Your task to perform on an android device: change the clock display to analog Image 0: 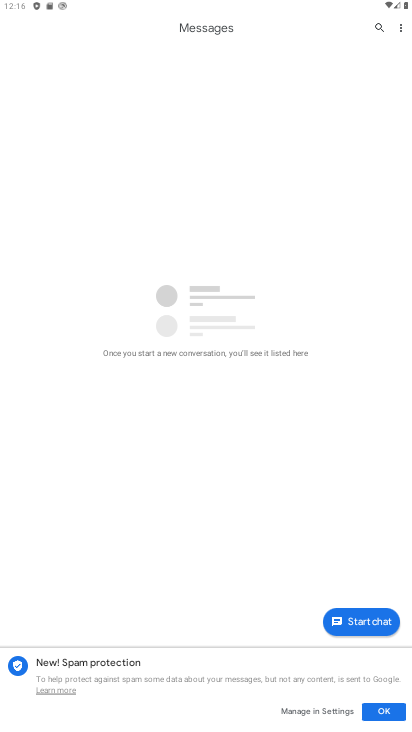
Step 0: press home button
Your task to perform on an android device: change the clock display to analog Image 1: 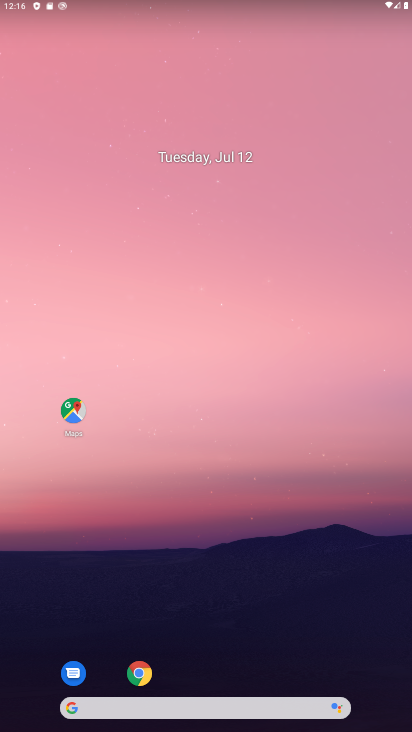
Step 1: drag from (256, 102) to (267, 6)
Your task to perform on an android device: change the clock display to analog Image 2: 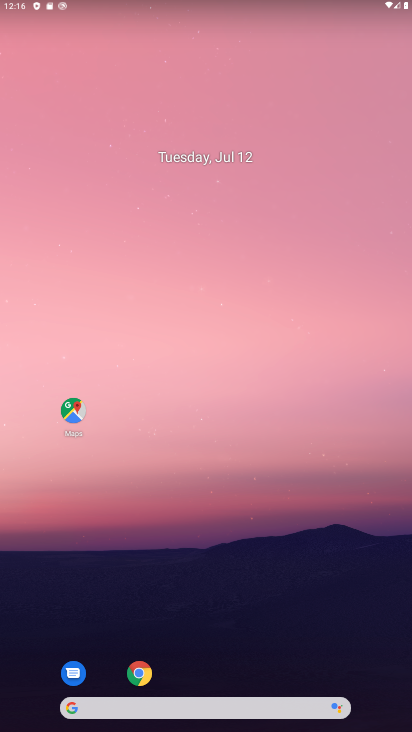
Step 2: drag from (321, 614) to (283, 283)
Your task to perform on an android device: change the clock display to analog Image 3: 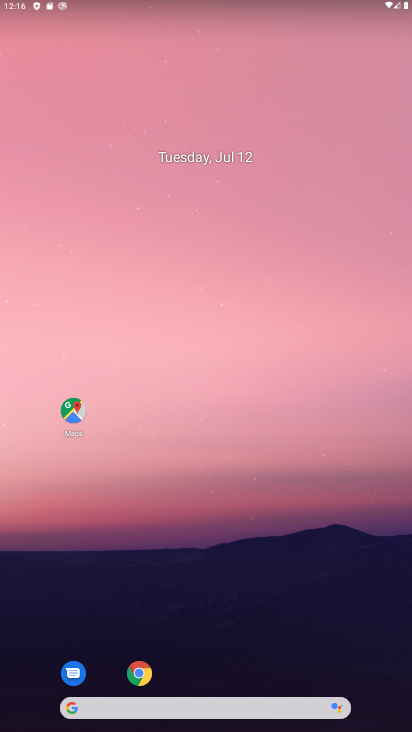
Step 3: drag from (390, 668) to (252, 77)
Your task to perform on an android device: change the clock display to analog Image 4: 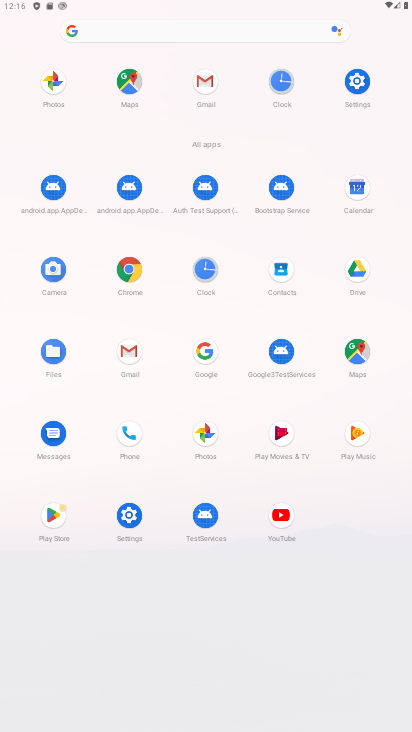
Step 4: click (280, 82)
Your task to perform on an android device: change the clock display to analog Image 5: 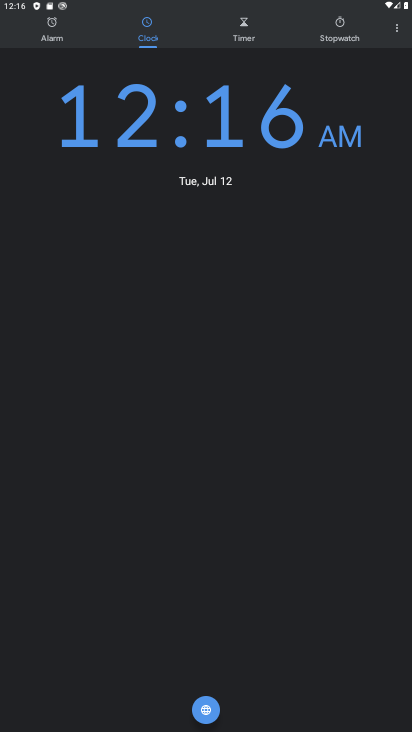
Step 5: click (392, 35)
Your task to perform on an android device: change the clock display to analog Image 6: 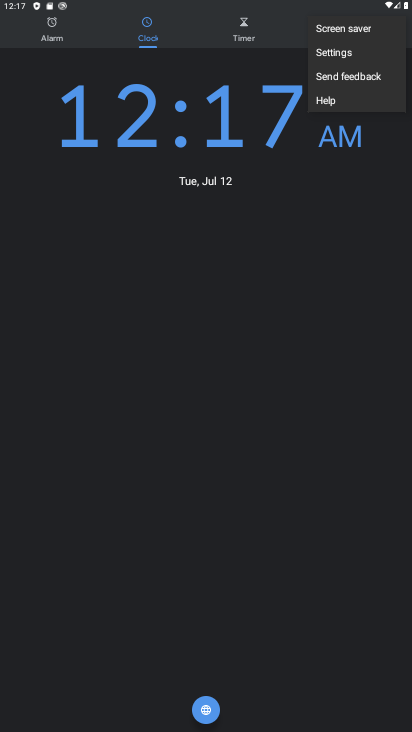
Step 6: click (352, 50)
Your task to perform on an android device: change the clock display to analog Image 7: 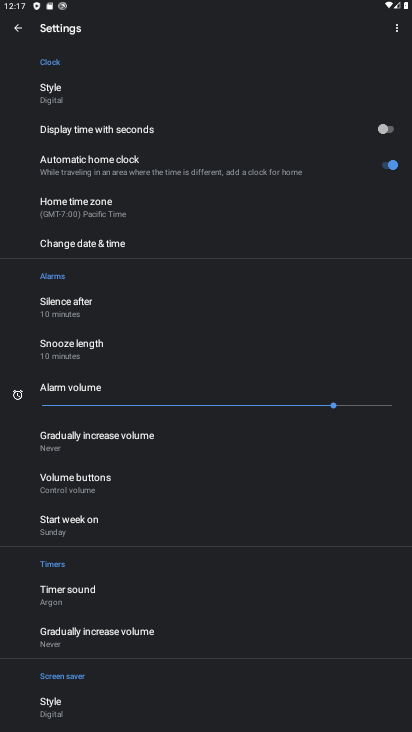
Step 7: click (156, 97)
Your task to perform on an android device: change the clock display to analog Image 8: 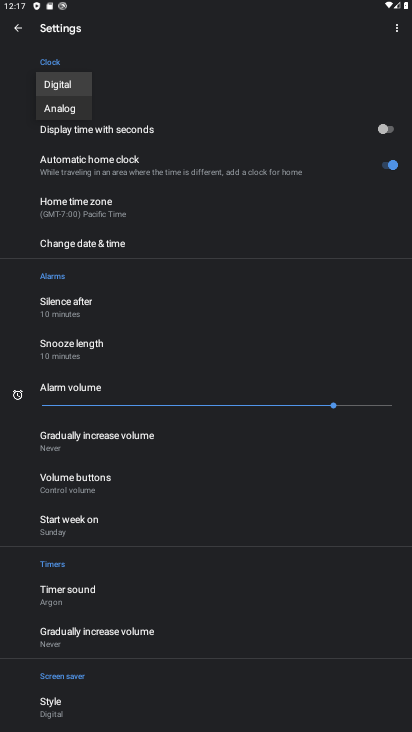
Step 8: click (72, 103)
Your task to perform on an android device: change the clock display to analog Image 9: 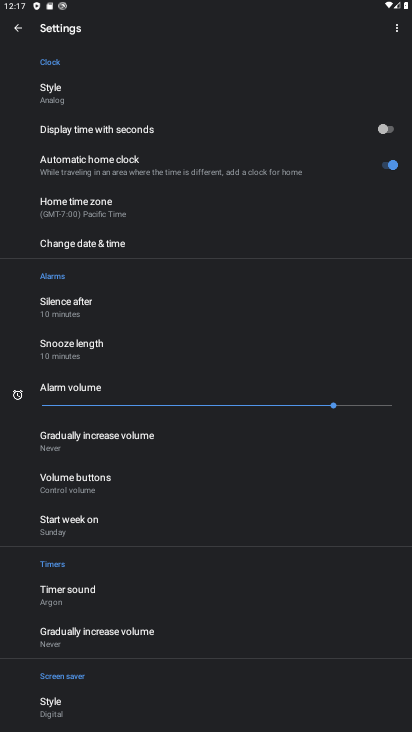
Step 9: task complete